Your task to perform on an android device: read, delete, or share a saved page in the chrome app Image 0: 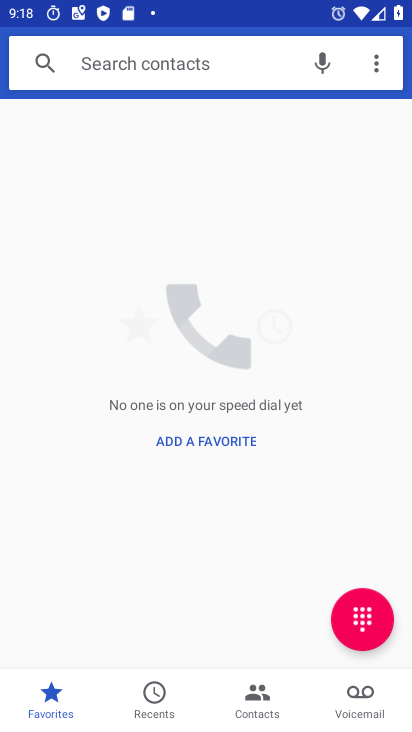
Step 0: press home button
Your task to perform on an android device: read, delete, or share a saved page in the chrome app Image 1: 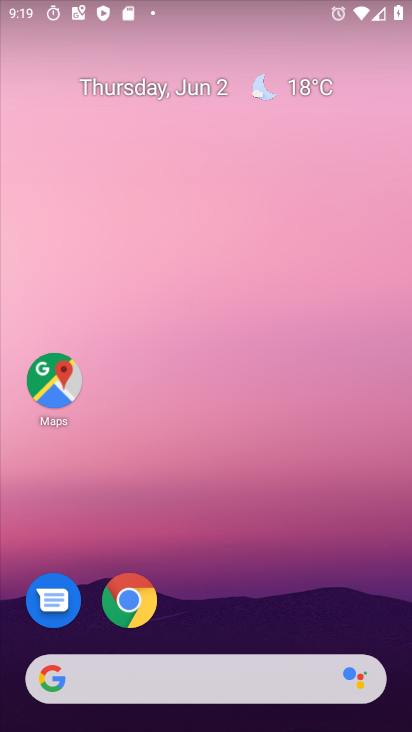
Step 1: drag from (359, 618) to (354, 158)
Your task to perform on an android device: read, delete, or share a saved page in the chrome app Image 2: 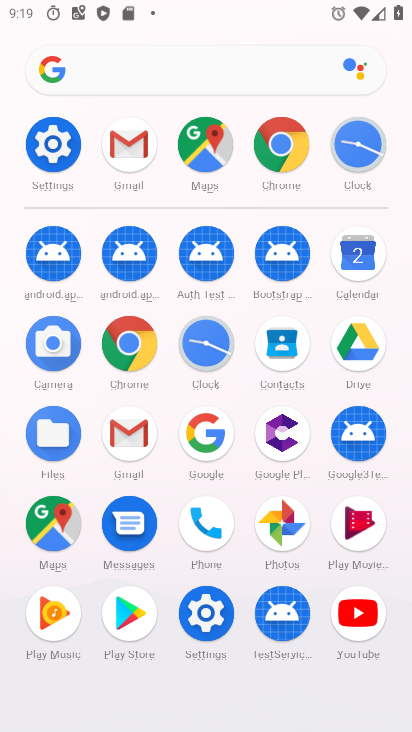
Step 2: click (142, 353)
Your task to perform on an android device: read, delete, or share a saved page in the chrome app Image 3: 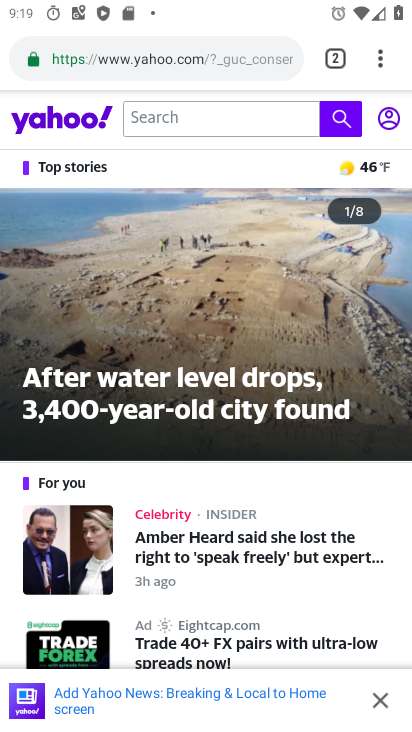
Step 3: click (377, 64)
Your task to perform on an android device: read, delete, or share a saved page in the chrome app Image 4: 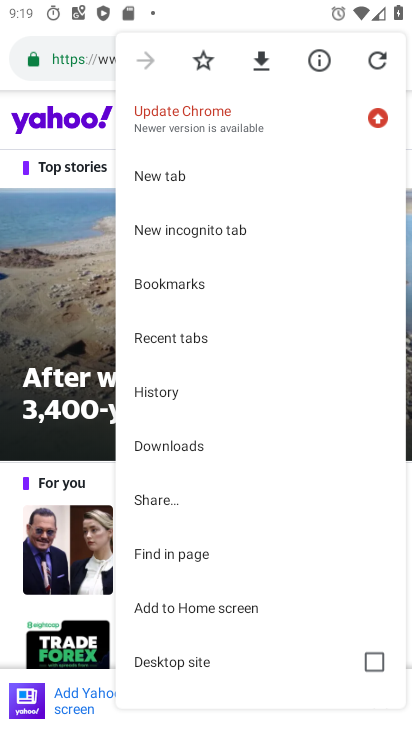
Step 4: drag from (310, 413) to (326, 294)
Your task to perform on an android device: read, delete, or share a saved page in the chrome app Image 5: 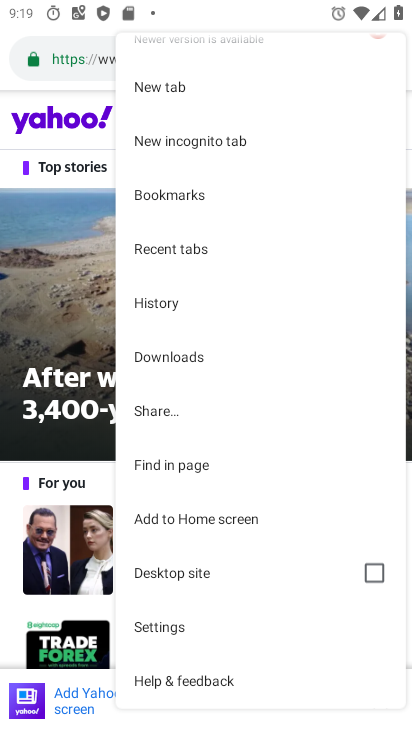
Step 5: drag from (307, 469) to (312, 334)
Your task to perform on an android device: read, delete, or share a saved page in the chrome app Image 6: 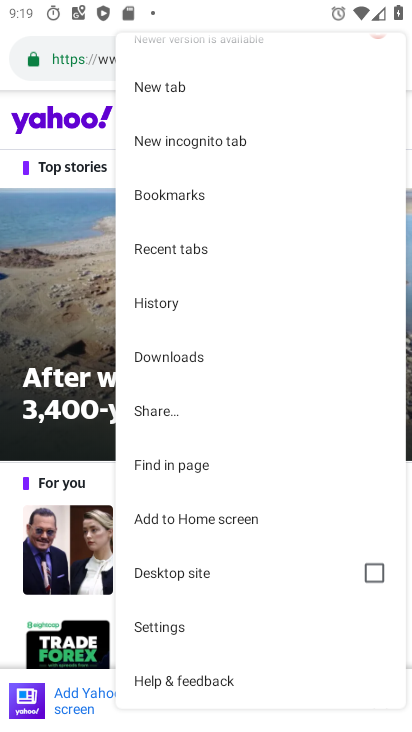
Step 6: click (204, 366)
Your task to perform on an android device: read, delete, or share a saved page in the chrome app Image 7: 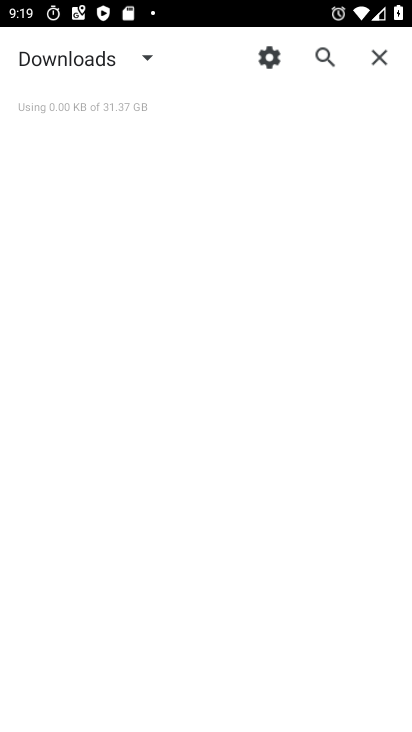
Step 7: click (151, 62)
Your task to perform on an android device: read, delete, or share a saved page in the chrome app Image 8: 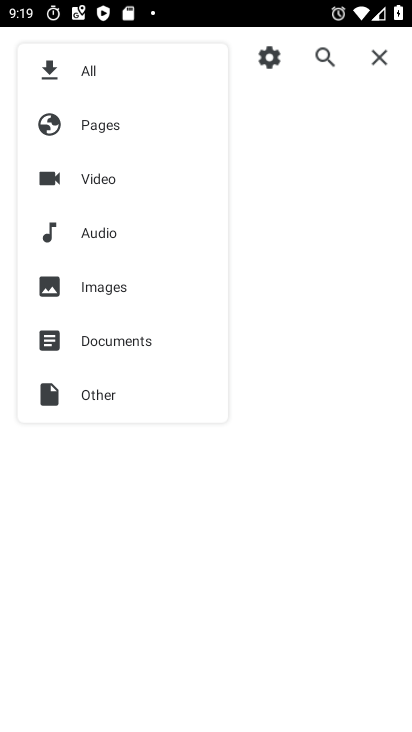
Step 8: click (118, 130)
Your task to perform on an android device: read, delete, or share a saved page in the chrome app Image 9: 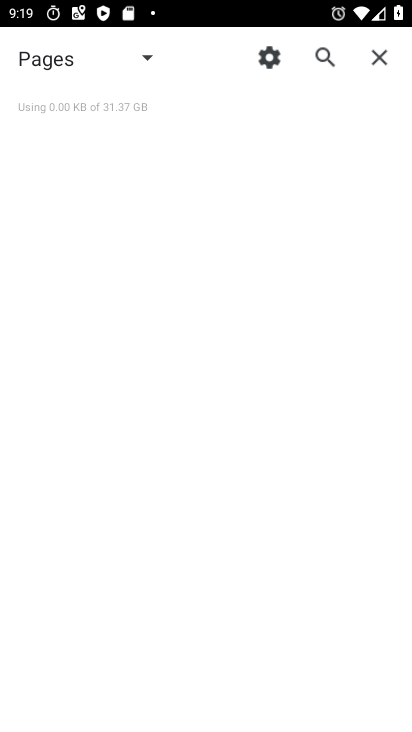
Step 9: task complete